Your task to perform on an android device: Open internet settings Image 0: 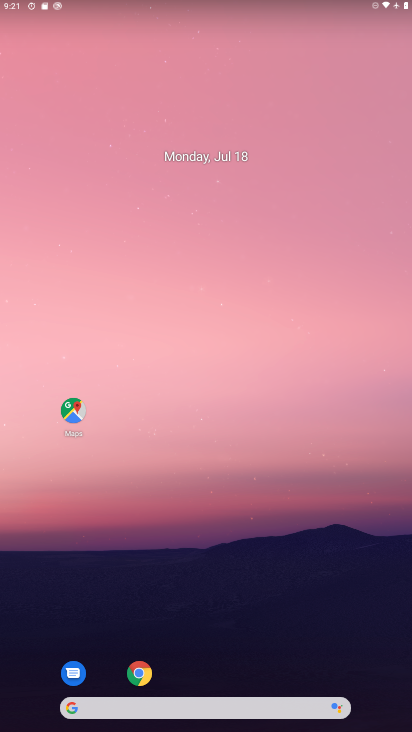
Step 0: press home button
Your task to perform on an android device: Open internet settings Image 1: 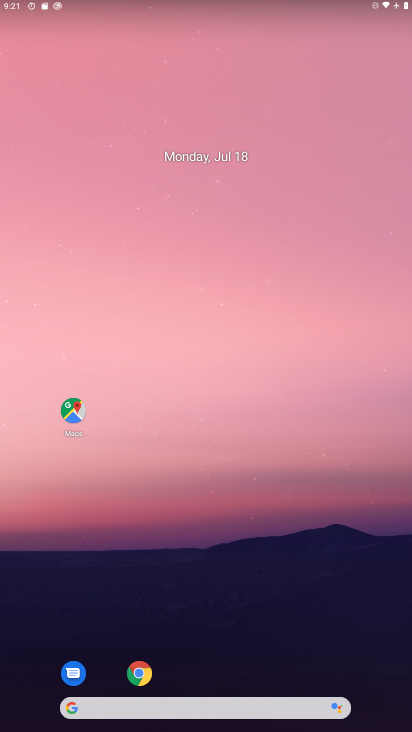
Step 1: drag from (239, 656) to (185, 13)
Your task to perform on an android device: Open internet settings Image 2: 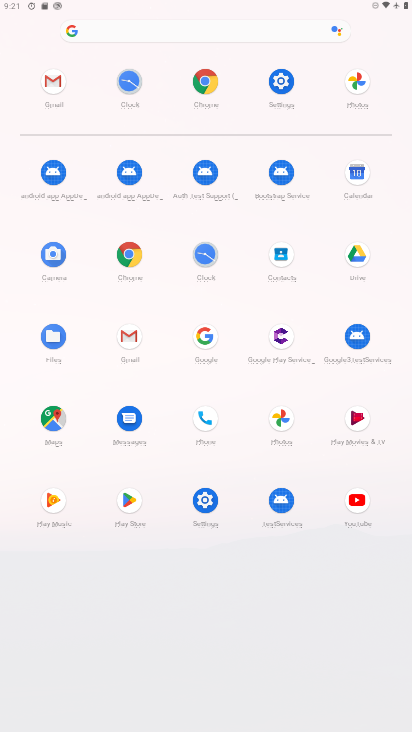
Step 2: click (287, 76)
Your task to perform on an android device: Open internet settings Image 3: 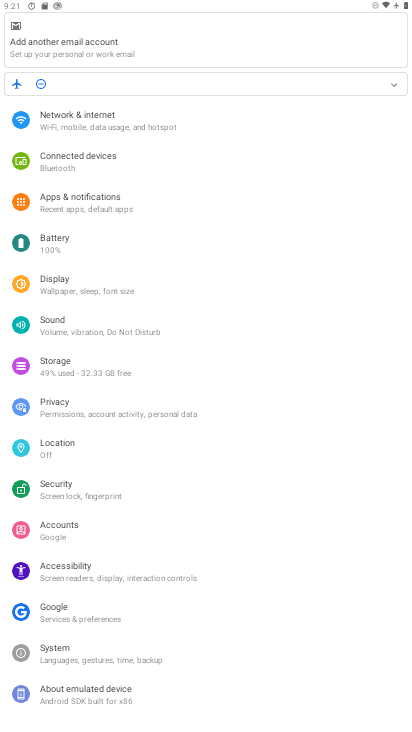
Step 3: click (76, 129)
Your task to perform on an android device: Open internet settings Image 4: 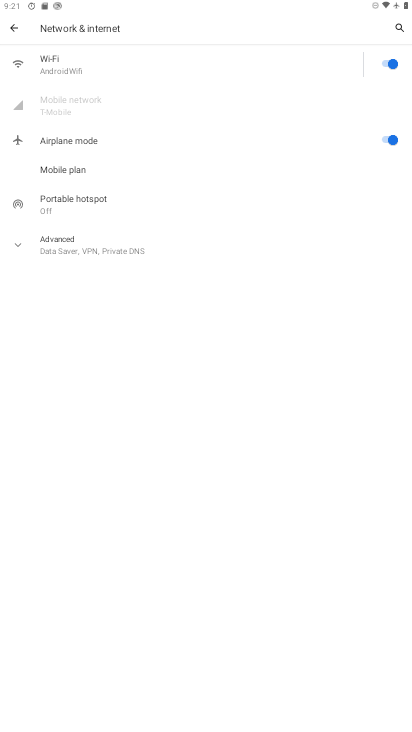
Step 4: task complete